Your task to perform on an android device: snooze an email in the gmail app Image 0: 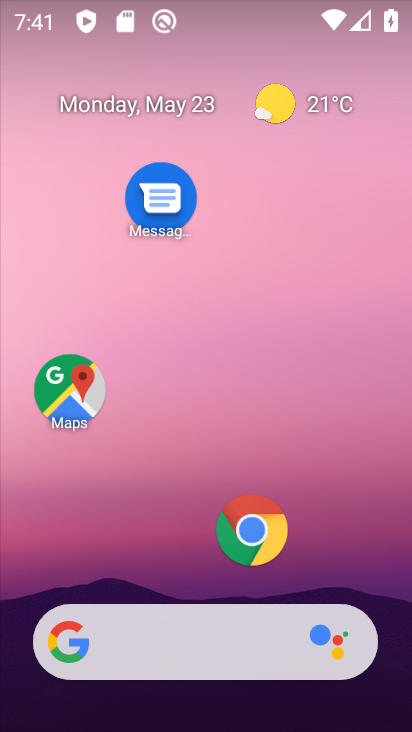
Step 0: drag from (146, 574) to (165, 130)
Your task to perform on an android device: snooze an email in the gmail app Image 1: 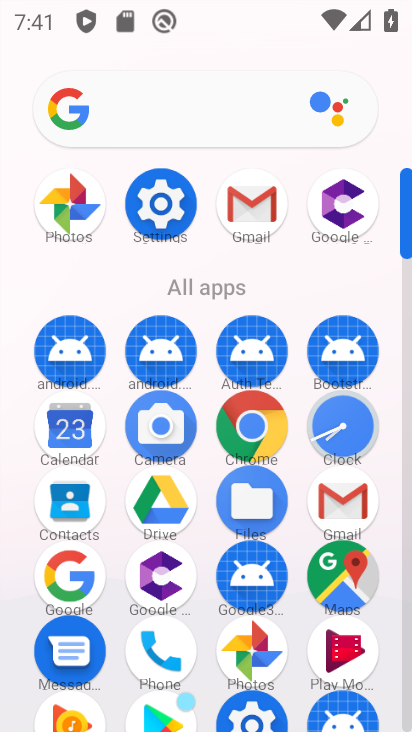
Step 1: click (262, 187)
Your task to perform on an android device: snooze an email in the gmail app Image 2: 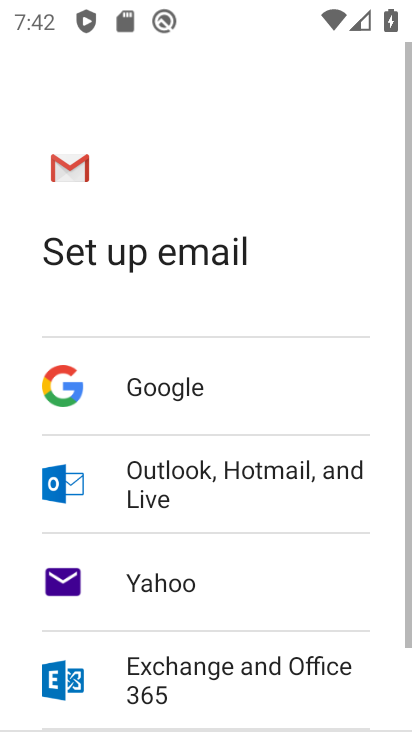
Step 2: press home button
Your task to perform on an android device: snooze an email in the gmail app Image 3: 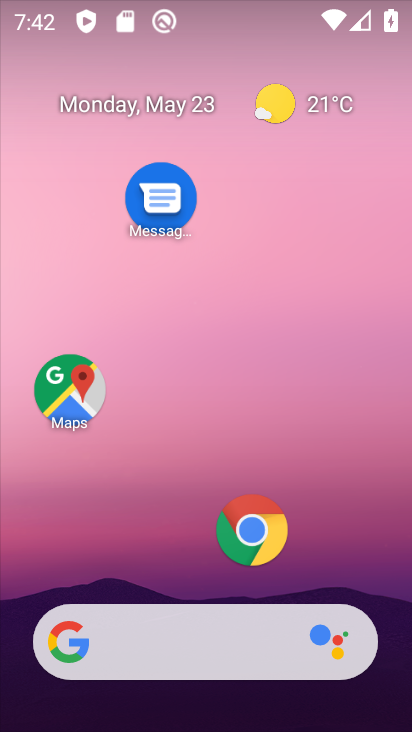
Step 3: drag from (175, 551) to (255, 23)
Your task to perform on an android device: snooze an email in the gmail app Image 4: 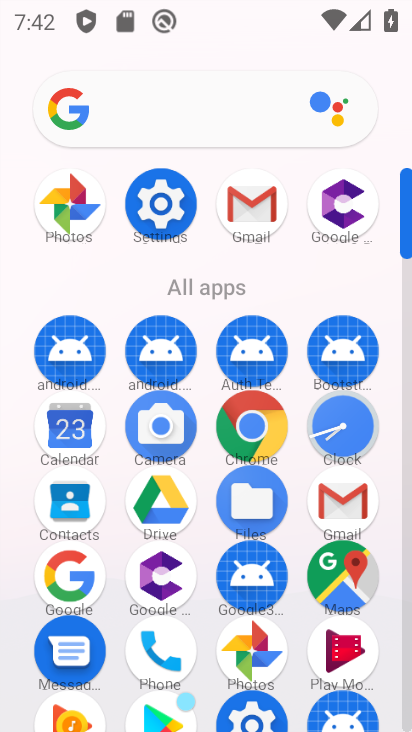
Step 4: click (249, 209)
Your task to perform on an android device: snooze an email in the gmail app Image 5: 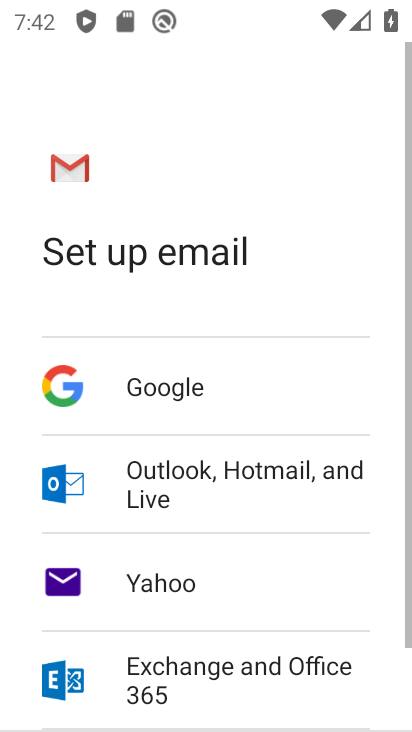
Step 5: click (162, 377)
Your task to perform on an android device: snooze an email in the gmail app Image 6: 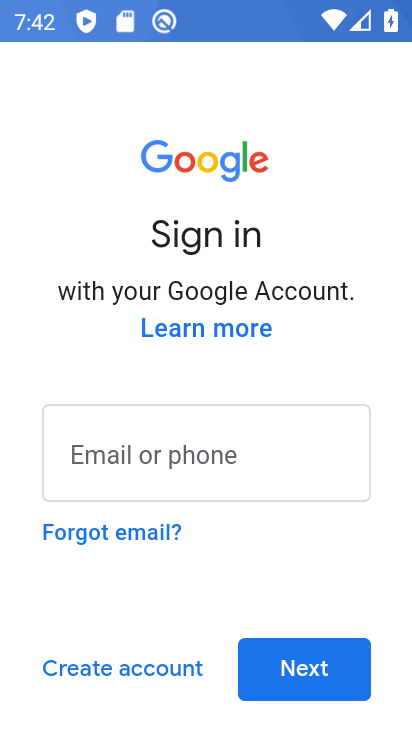
Step 6: task complete